Your task to perform on an android device: turn pop-ups off in chrome Image 0: 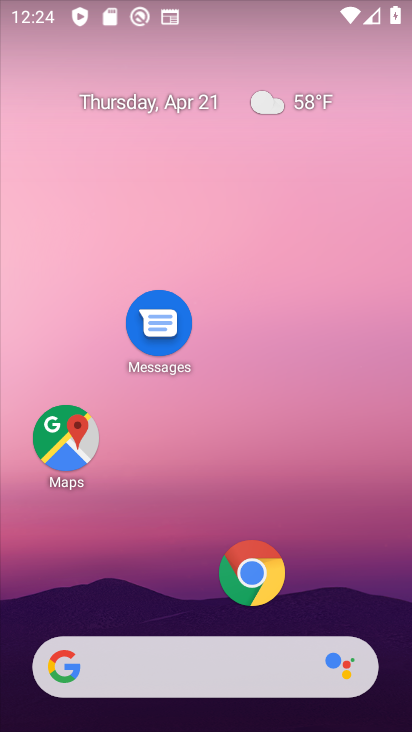
Step 0: click (247, 575)
Your task to perform on an android device: turn pop-ups off in chrome Image 1: 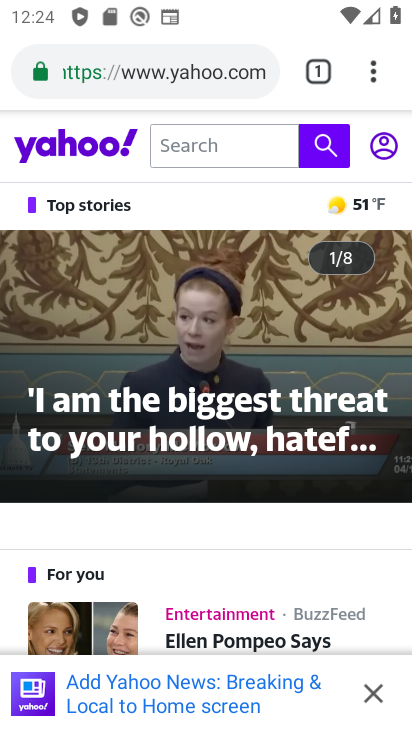
Step 1: click (370, 75)
Your task to perform on an android device: turn pop-ups off in chrome Image 2: 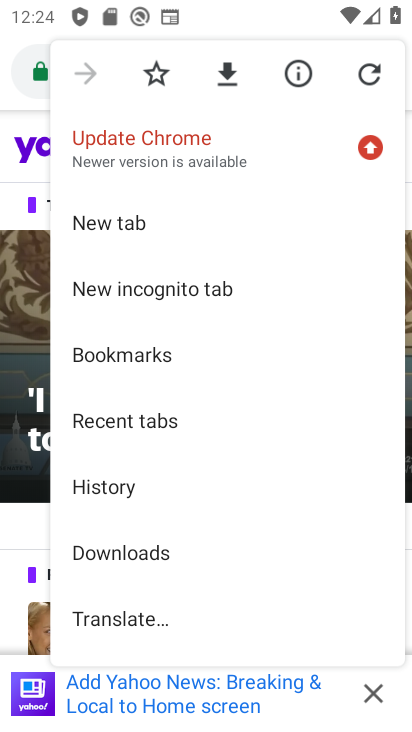
Step 2: drag from (204, 464) to (185, 87)
Your task to perform on an android device: turn pop-ups off in chrome Image 3: 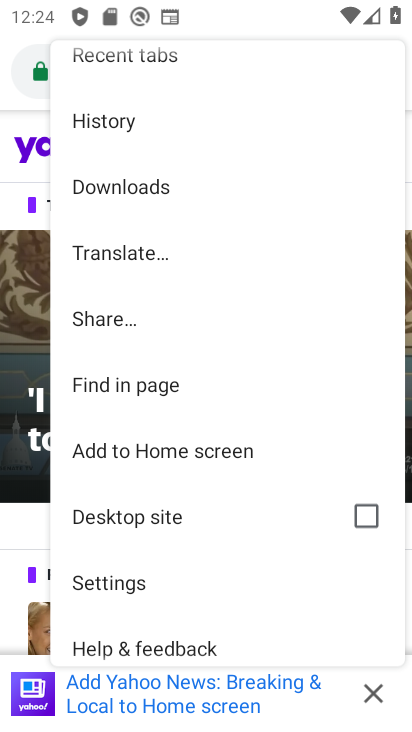
Step 3: click (115, 578)
Your task to perform on an android device: turn pop-ups off in chrome Image 4: 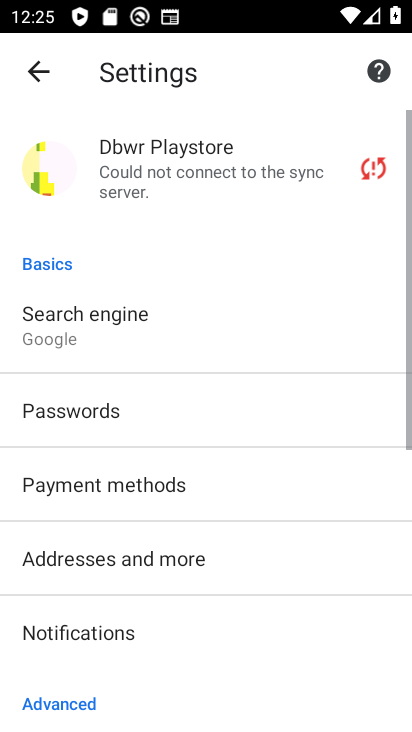
Step 4: drag from (233, 455) to (219, 59)
Your task to perform on an android device: turn pop-ups off in chrome Image 5: 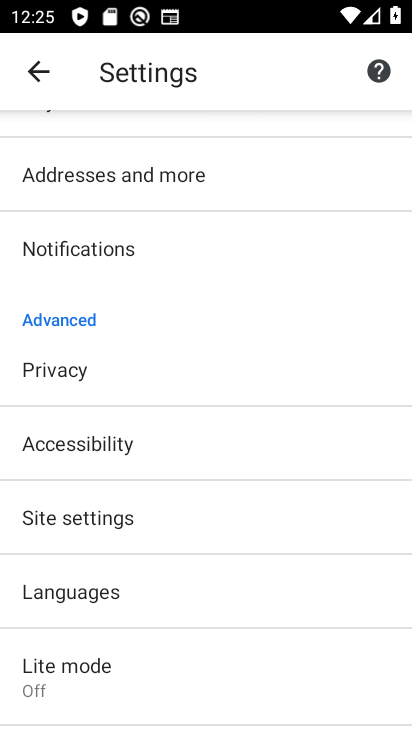
Step 5: click (114, 523)
Your task to perform on an android device: turn pop-ups off in chrome Image 6: 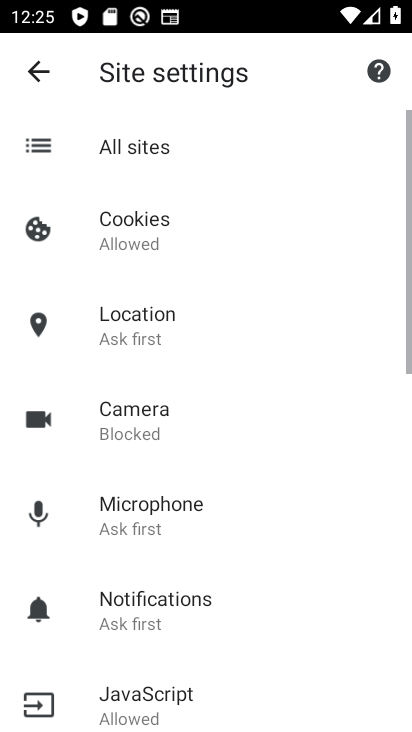
Step 6: drag from (175, 671) to (162, 204)
Your task to perform on an android device: turn pop-ups off in chrome Image 7: 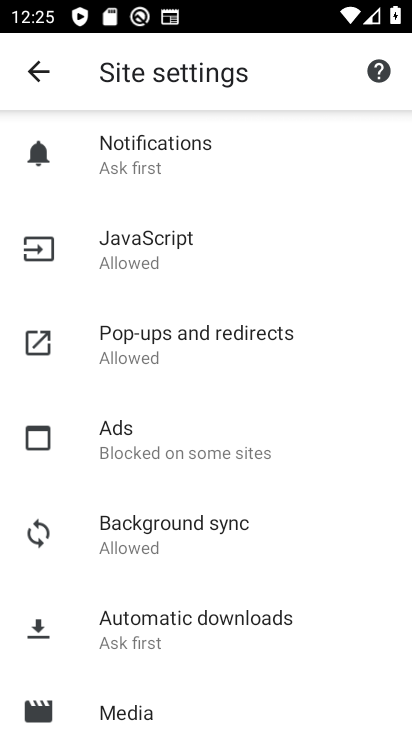
Step 7: click (196, 337)
Your task to perform on an android device: turn pop-ups off in chrome Image 8: 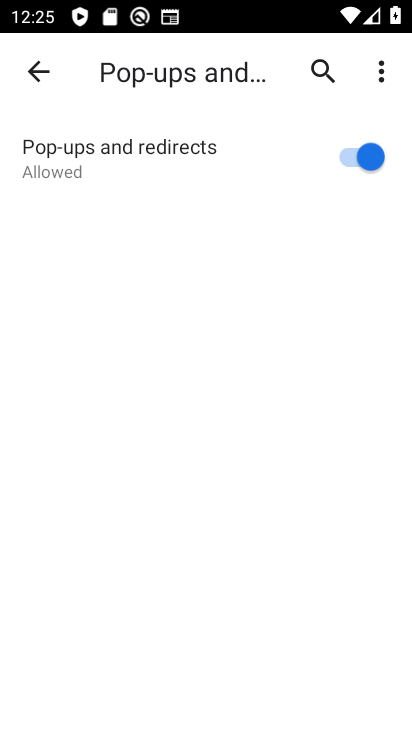
Step 8: click (361, 157)
Your task to perform on an android device: turn pop-ups off in chrome Image 9: 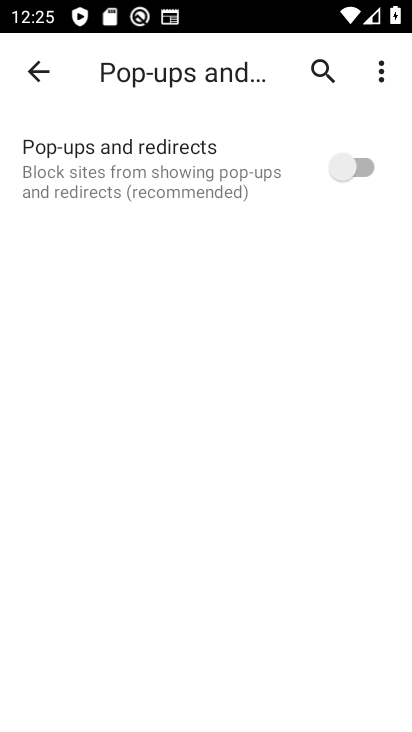
Step 9: task complete